Your task to perform on an android device: Search for runner rugs on Crate & Barrel Image 0: 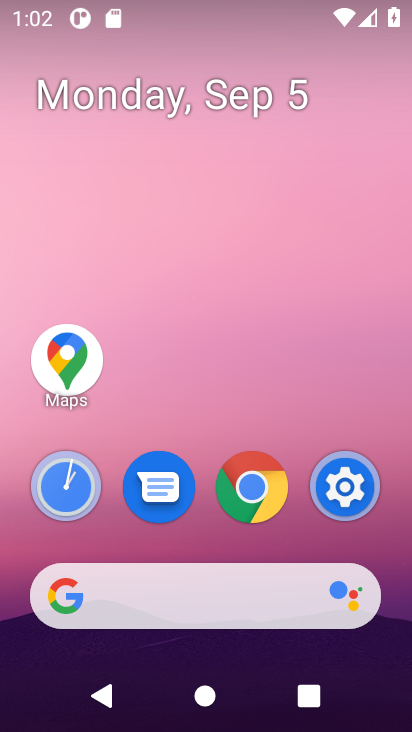
Step 0: click (273, 507)
Your task to perform on an android device: Search for runner rugs on Crate & Barrel Image 1: 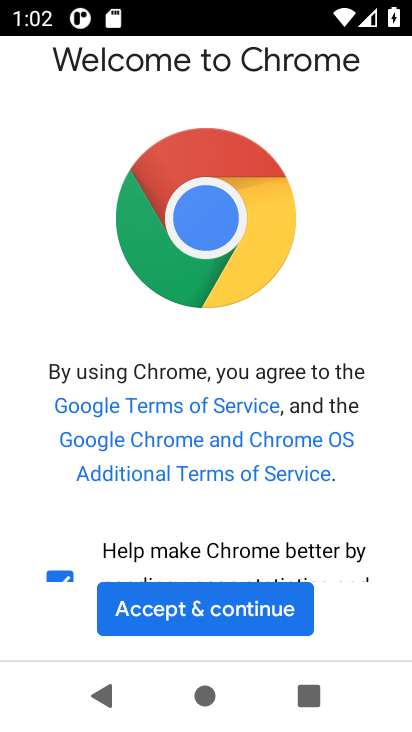
Step 1: click (215, 615)
Your task to perform on an android device: Search for runner rugs on Crate & Barrel Image 2: 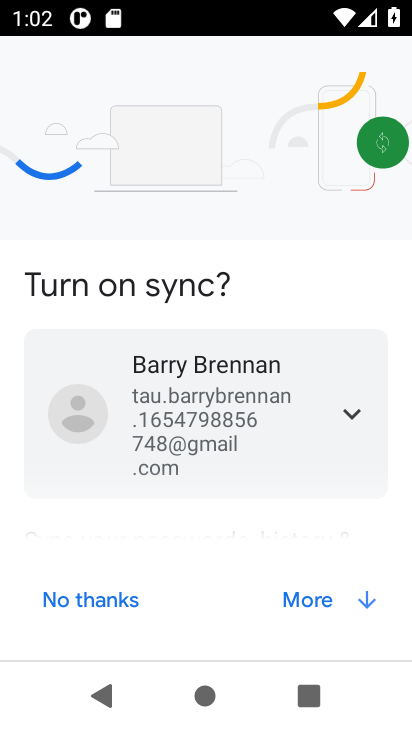
Step 2: click (110, 595)
Your task to perform on an android device: Search for runner rugs on Crate & Barrel Image 3: 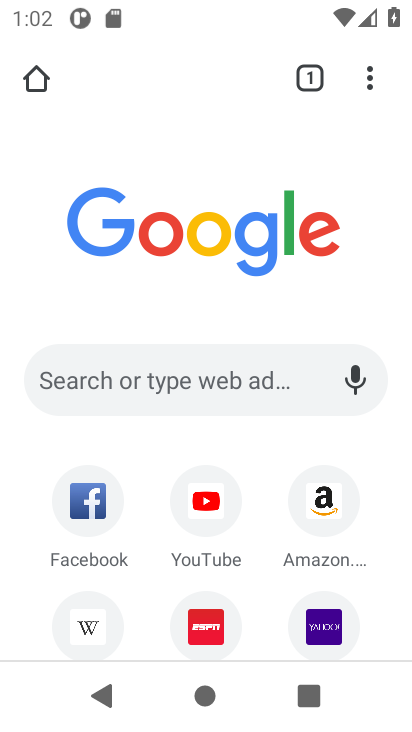
Step 3: click (118, 410)
Your task to perform on an android device: Search for runner rugs on Crate & Barrel Image 4: 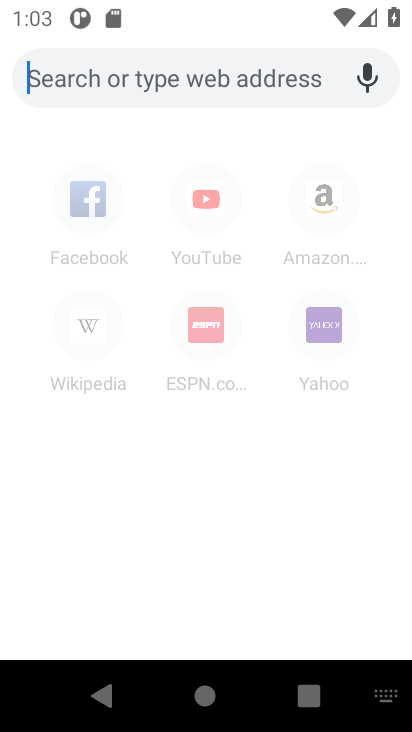
Step 4: type "runner rugs on Crate & Barrel"
Your task to perform on an android device: Search for runner rugs on Crate & Barrel Image 5: 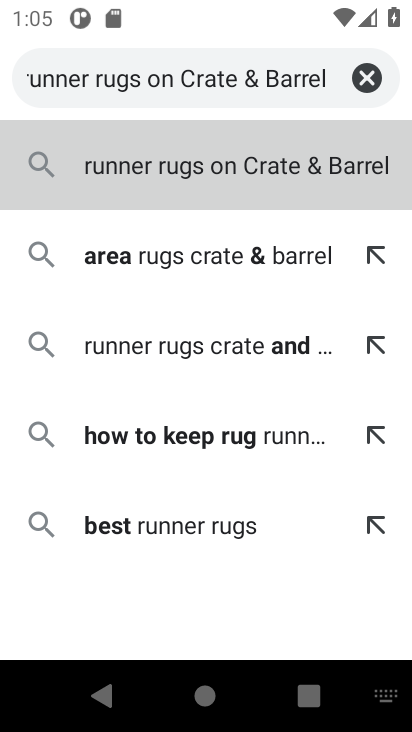
Step 5: click (290, 165)
Your task to perform on an android device: Search for runner rugs on Crate & Barrel Image 6: 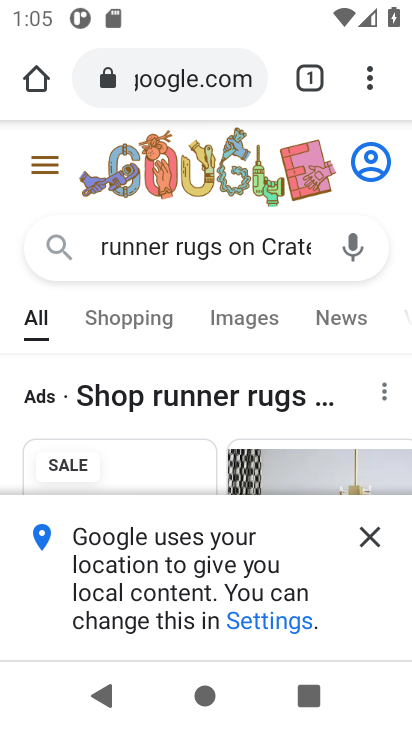
Step 6: task complete